Your task to perform on an android device: clear all cookies in the chrome app Image 0: 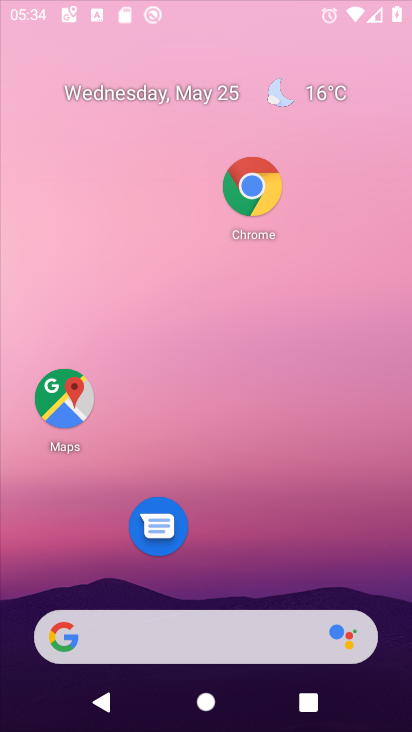
Step 0: drag from (300, 649) to (374, 12)
Your task to perform on an android device: clear all cookies in the chrome app Image 1: 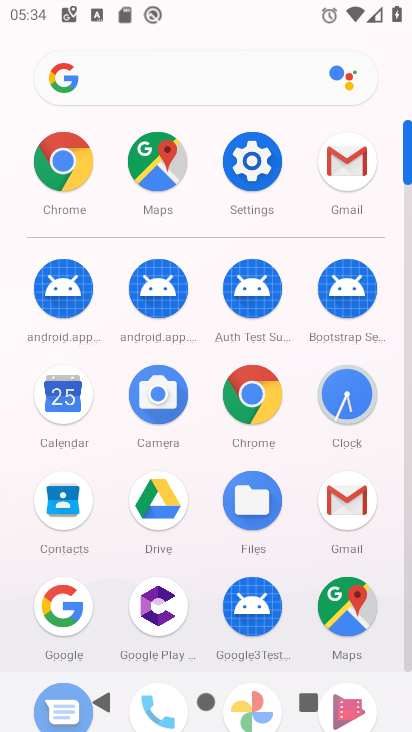
Step 1: click (262, 400)
Your task to perform on an android device: clear all cookies in the chrome app Image 2: 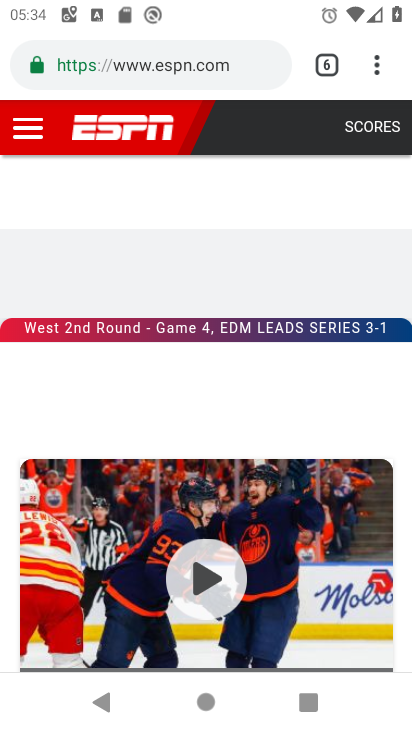
Step 2: drag from (377, 68) to (163, 357)
Your task to perform on an android device: clear all cookies in the chrome app Image 3: 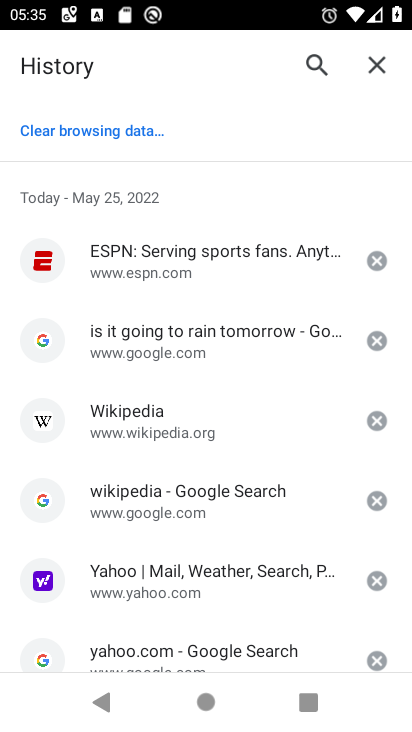
Step 3: click (127, 124)
Your task to perform on an android device: clear all cookies in the chrome app Image 4: 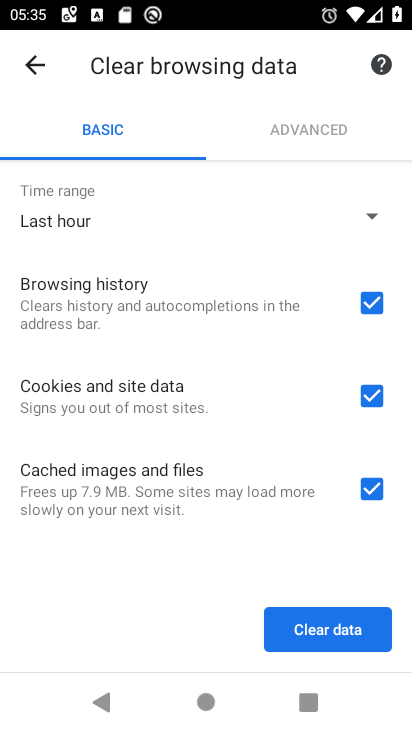
Step 4: click (336, 652)
Your task to perform on an android device: clear all cookies in the chrome app Image 5: 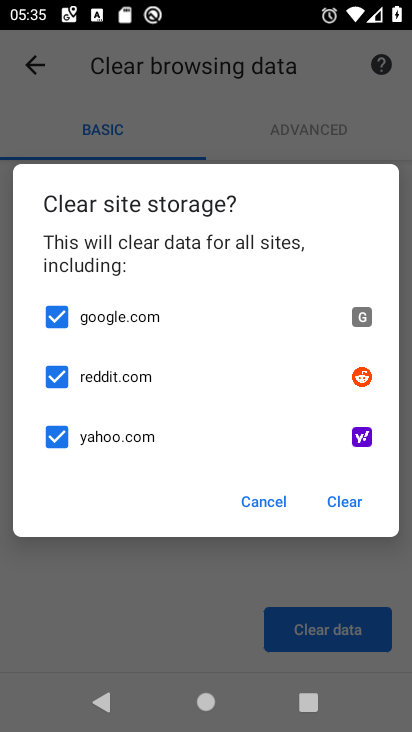
Step 5: click (341, 500)
Your task to perform on an android device: clear all cookies in the chrome app Image 6: 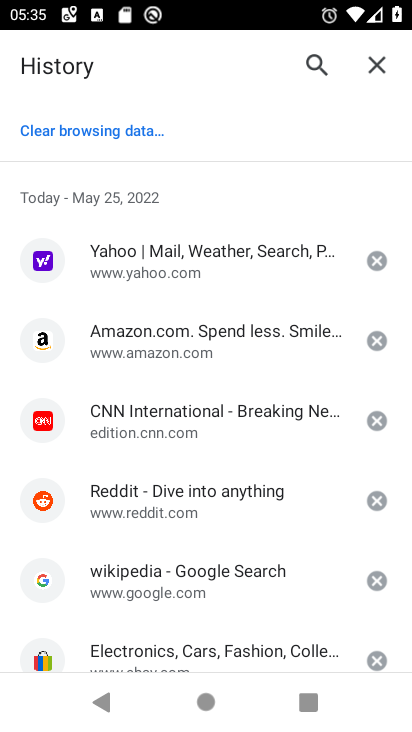
Step 6: click (373, 259)
Your task to perform on an android device: clear all cookies in the chrome app Image 7: 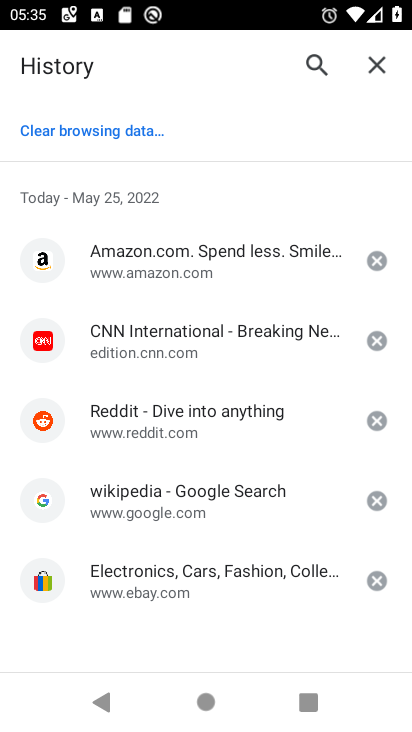
Step 7: click (379, 263)
Your task to perform on an android device: clear all cookies in the chrome app Image 8: 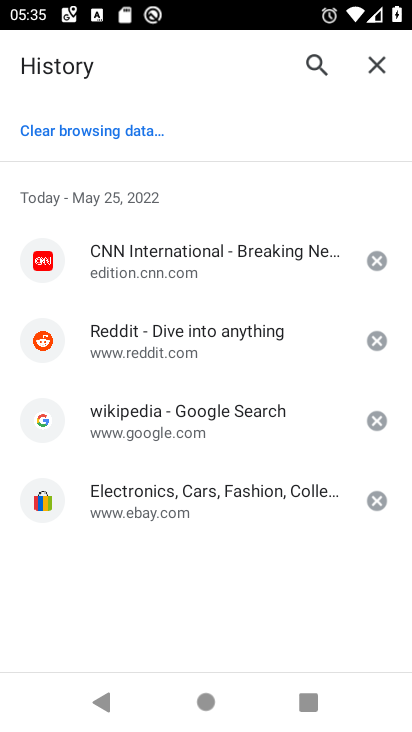
Step 8: click (379, 263)
Your task to perform on an android device: clear all cookies in the chrome app Image 9: 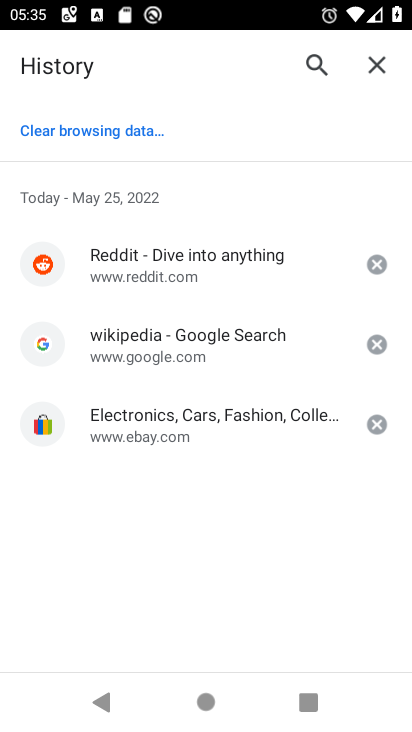
Step 9: click (379, 263)
Your task to perform on an android device: clear all cookies in the chrome app Image 10: 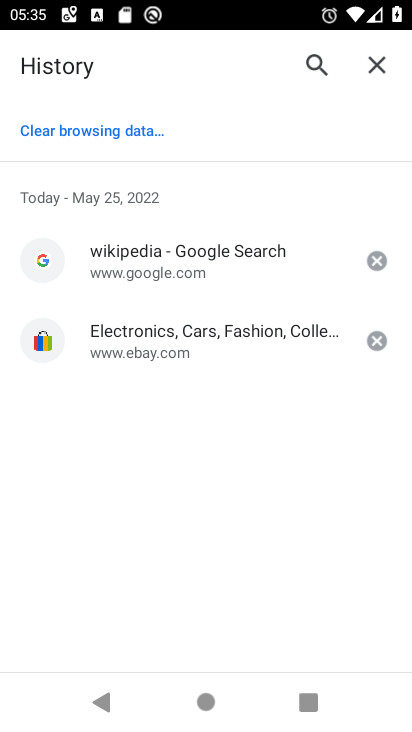
Step 10: click (374, 253)
Your task to perform on an android device: clear all cookies in the chrome app Image 11: 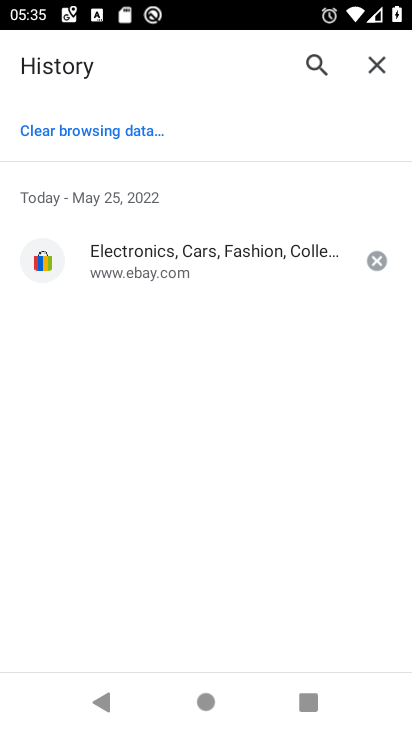
Step 11: click (380, 256)
Your task to perform on an android device: clear all cookies in the chrome app Image 12: 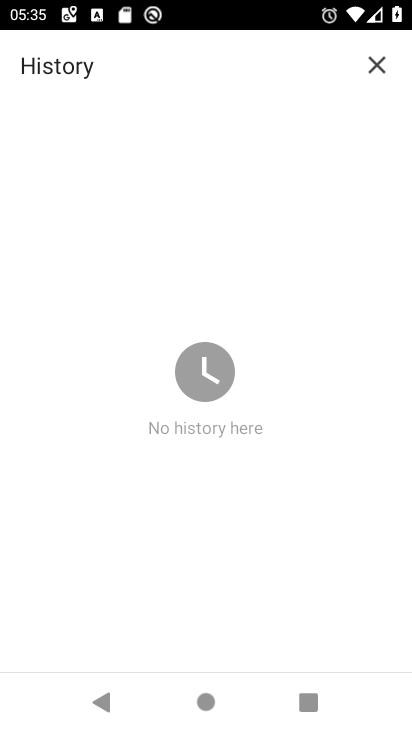
Step 12: task complete